Your task to perform on an android device: move a message to another label in the gmail app Image 0: 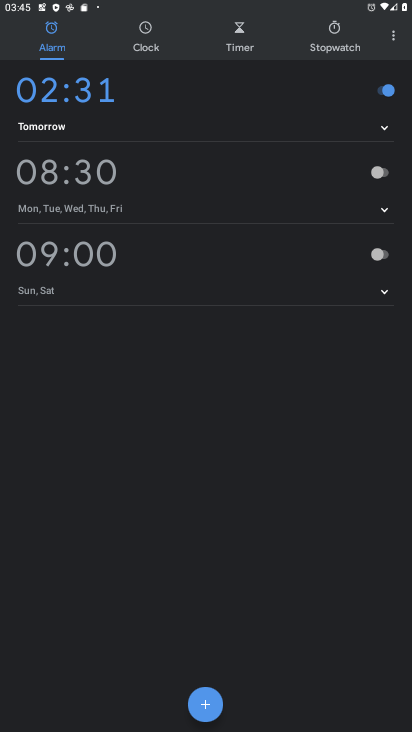
Step 0: press home button
Your task to perform on an android device: move a message to another label in the gmail app Image 1: 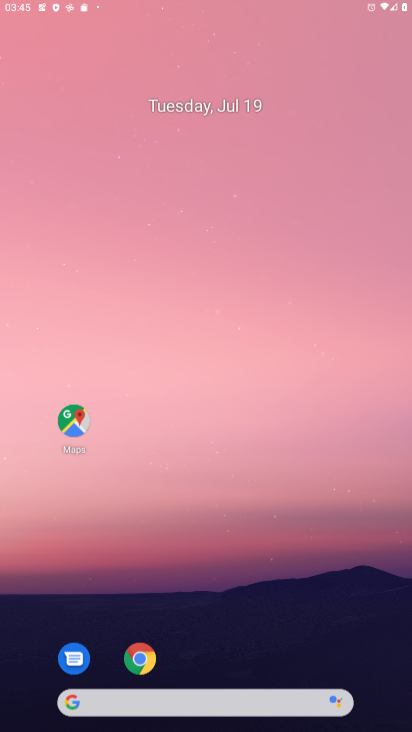
Step 1: drag from (263, 685) to (315, 178)
Your task to perform on an android device: move a message to another label in the gmail app Image 2: 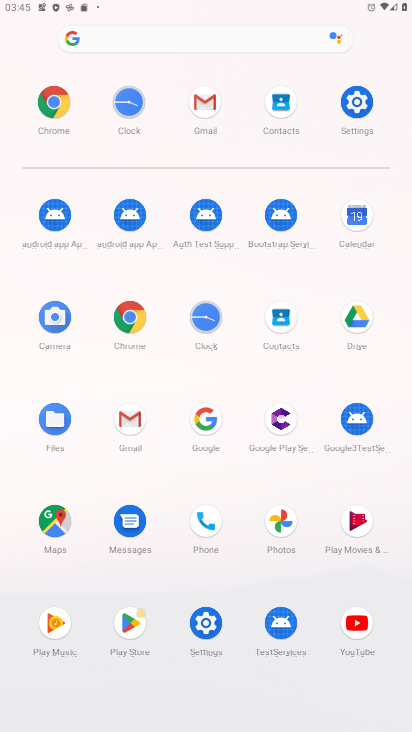
Step 2: click (145, 428)
Your task to perform on an android device: move a message to another label in the gmail app Image 3: 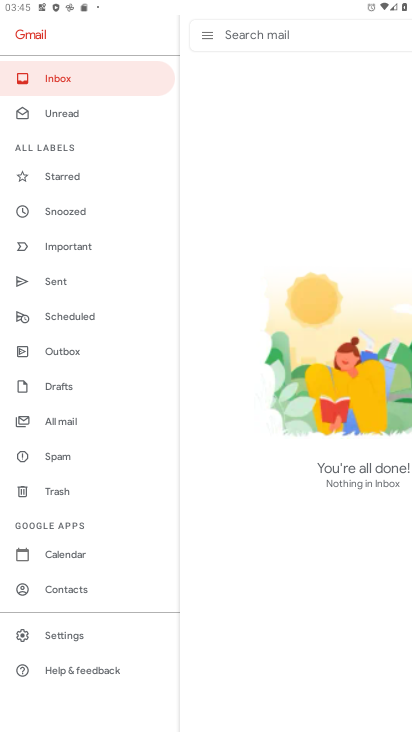
Step 3: task complete